Your task to perform on an android device: Search for pizza restaurants on Maps Image 0: 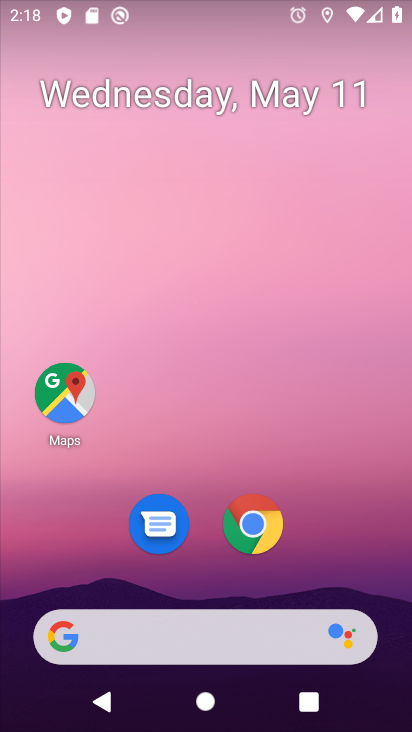
Step 0: click (77, 393)
Your task to perform on an android device: Search for pizza restaurants on Maps Image 1: 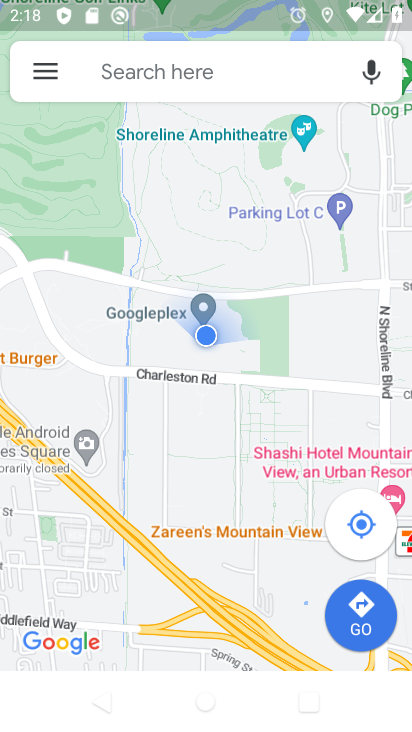
Step 1: click (168, 72)
Your task to perform on an android device: Search for pizza restaurants on Maps Image 2: 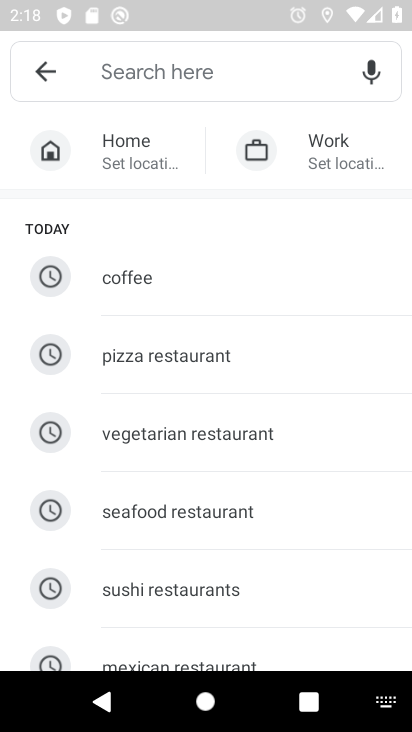
Step 2: click (177, 346)
Your task to perform on an android device: Search for pizza restaurants on Maps Image 3: 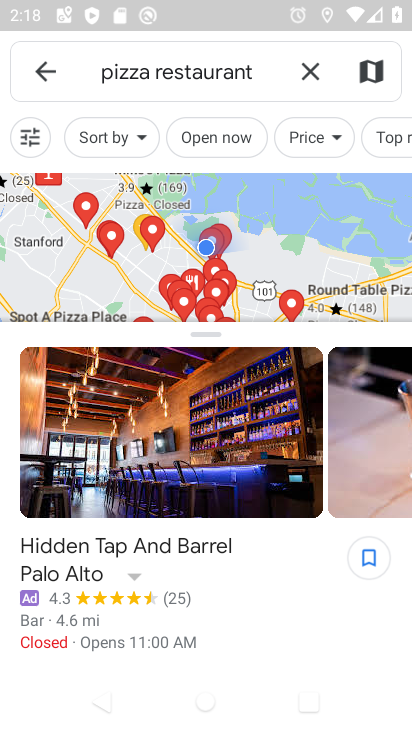
Step 3: task complete